Your task to perform on an android device: turn on translation in the chrome app Image 0: 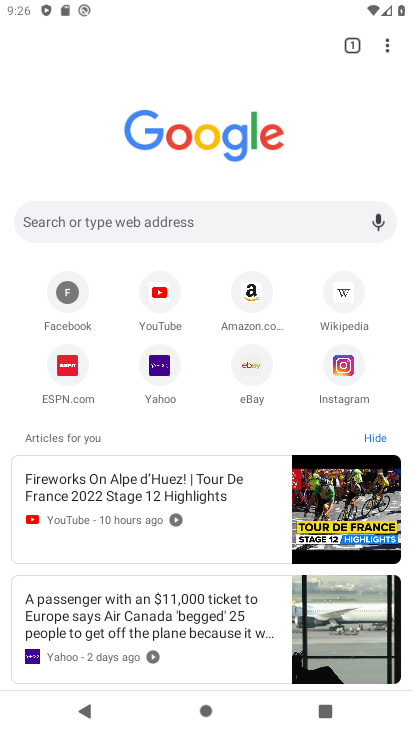
Step 0: press home button
Your task to perform on an android device: turn on translation in the chrome app Image 1: 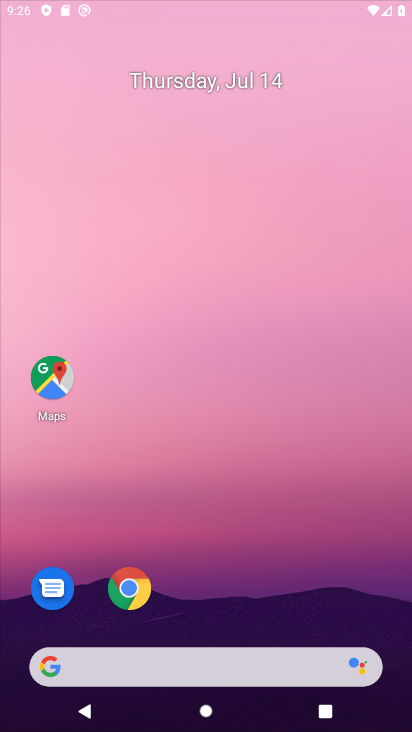
Step 1: drag from (160, 640) to (189, 338)
Your task to perform on an android device: turn on translation in the chrome app Image 2: 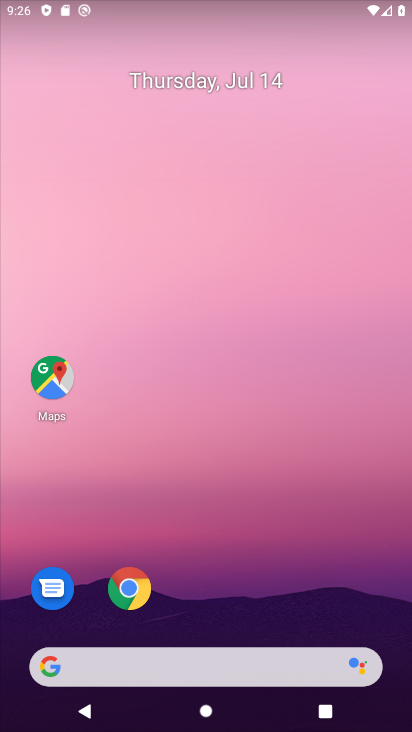
Step 2: drag from (222, 487) to (251, 279)
Your task to perform on an android device: turn on translation in the chrome app Image 3: 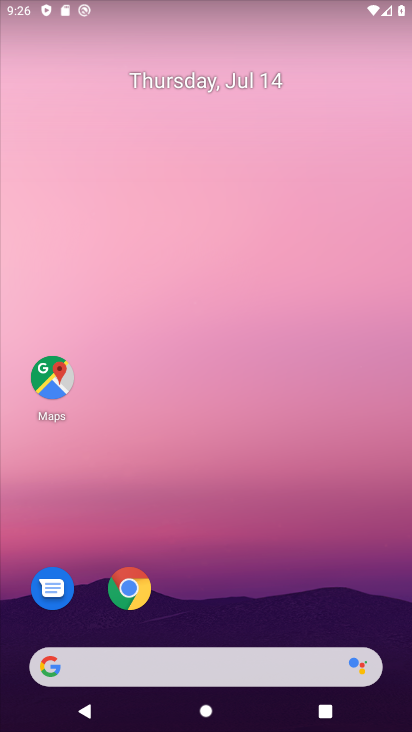
Step 3: click (141, 584)
Your task to perform on an android device: turn on translation in the chrome app Image 4: 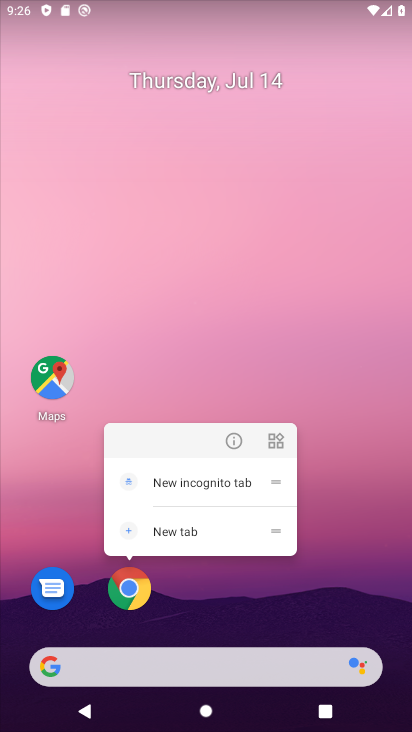
Step 4: click (124, 596)
Your task to perform on an android device: turn on translation in the chrome app Image 5: 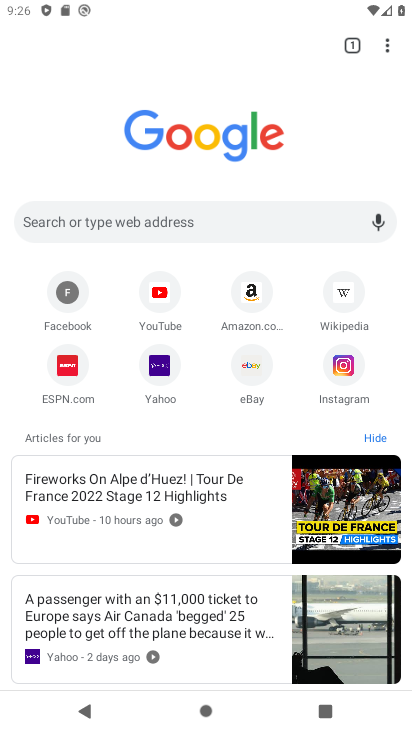
Step 5: click (390, 48)
Your task to perform on an android device: turn on translation in the chrome app Image 6: 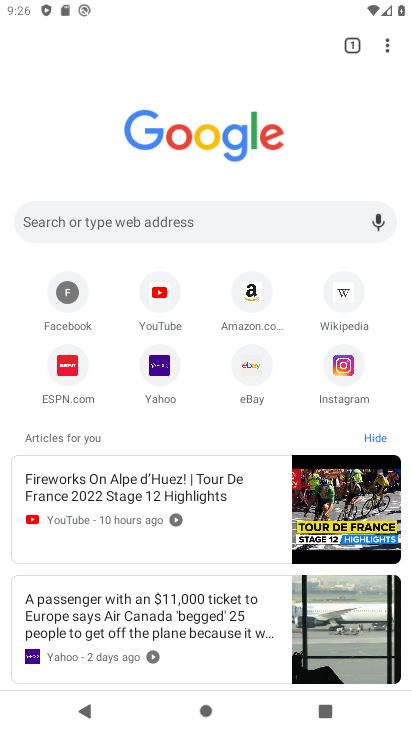
Step 6: click (390, 48)
Your task to perform on an android device: turn on translation in the chrome app Image 7: 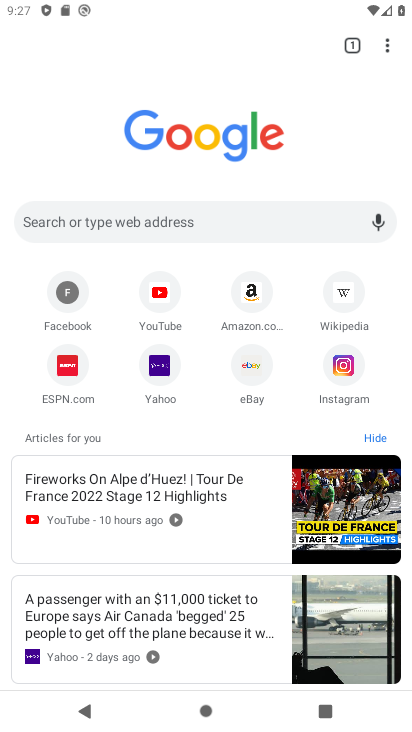
Step 7: click (386, 41)
Your task to perform on an android device: turn on translation in the chrome app Image 8: 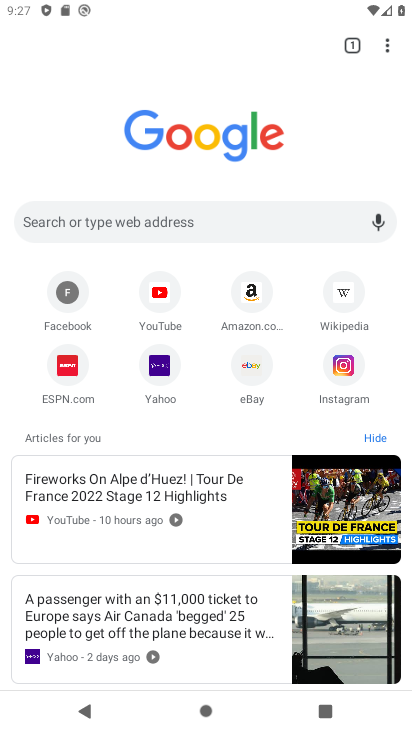
Step 8: click (385, 44)
Your task to perform on an android device: turn on translation in the chrome app Image 9: 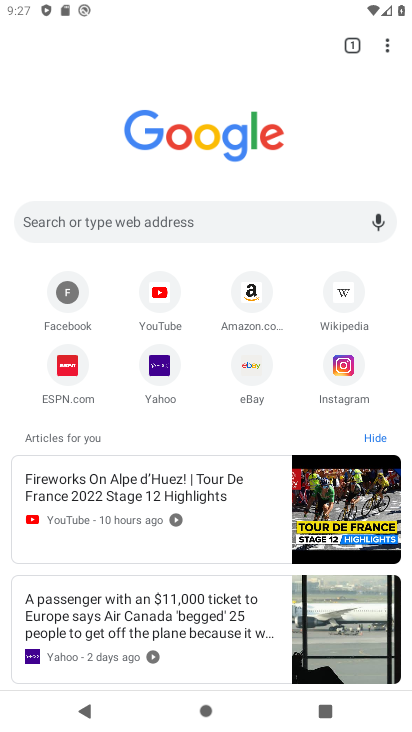
Step 9: click (386, 47)
Your task to perform on an android device: turn on translation in the chrome app Image 10: 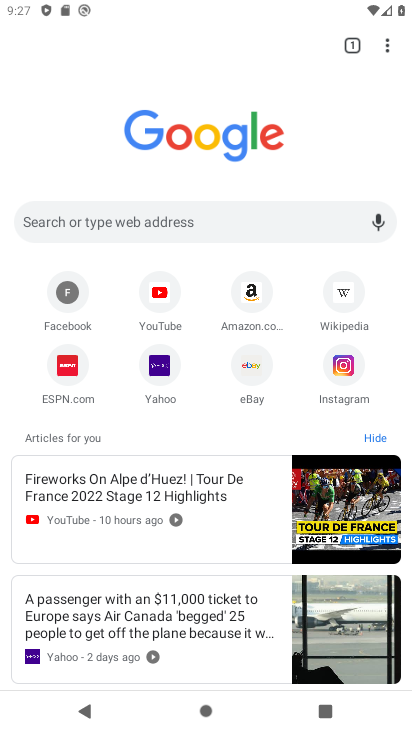
Step 10: click (392, 42)
Your task to perform on an android device: turn on translation in the chrome app Image 11: 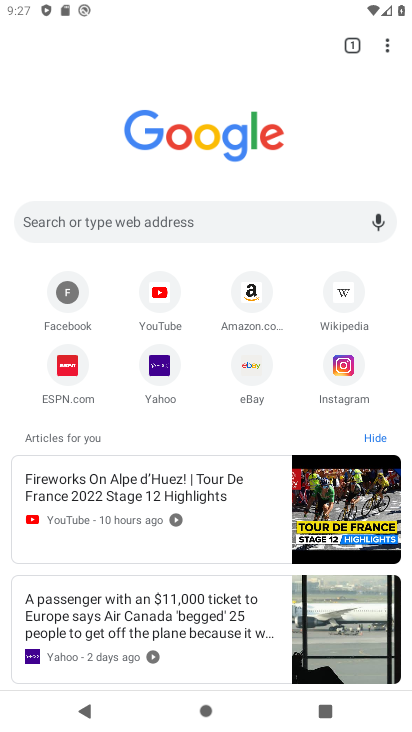
Step 11: click (392, 42)
Your task to perform on an android device: turn on translation in the chrome app Image 12: 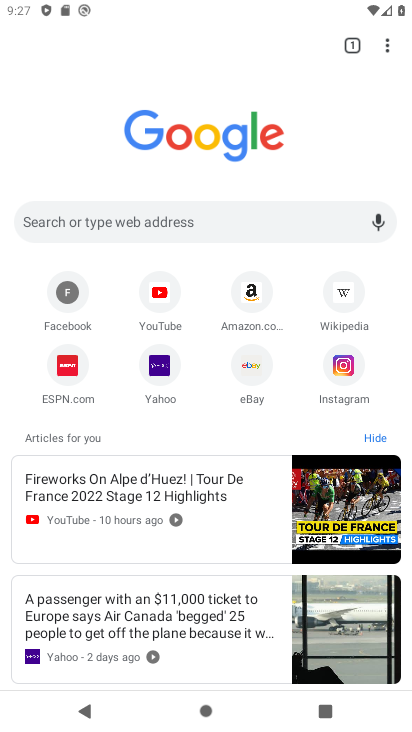
Step 12: click (380, 41)
Your task to perform on an android device: turn on translation in the chrome app Image 13: 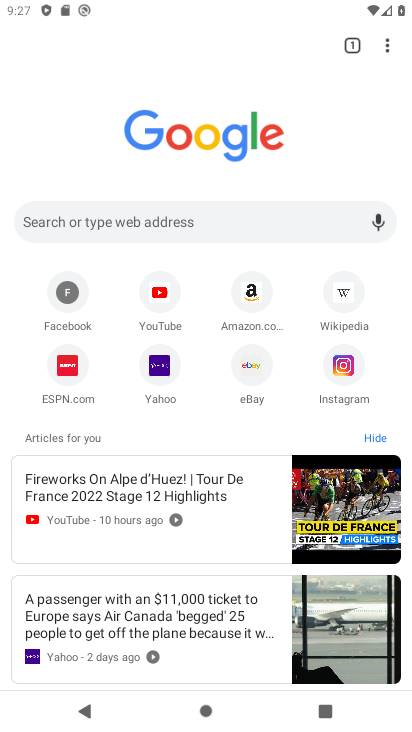
Step 13: click (388, 46)
Your task to perform on an android device: turn on translation in the chrome app Image 14: 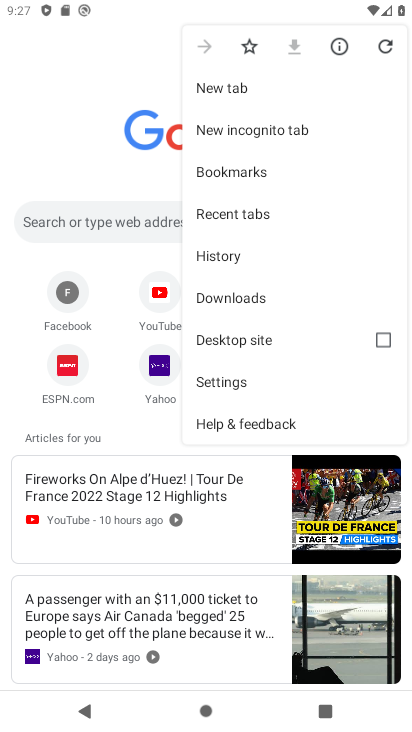
Step 14: click (227, 375)
Your task to perform on an android device: turn on translation in the chrome app Image 15: 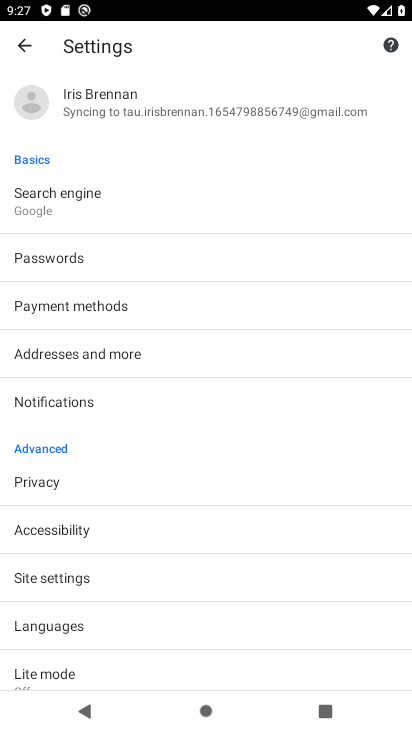
Step 15: click (55, 630)
Your task to perform on an android device: turn on translation in the chrome app Image 16: 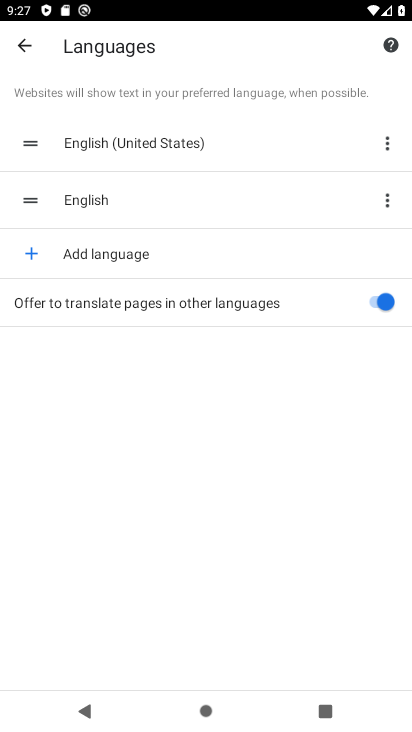
Step 16: task complete